Your task to perform on an android device: change the clock display to show seconds Image 0: 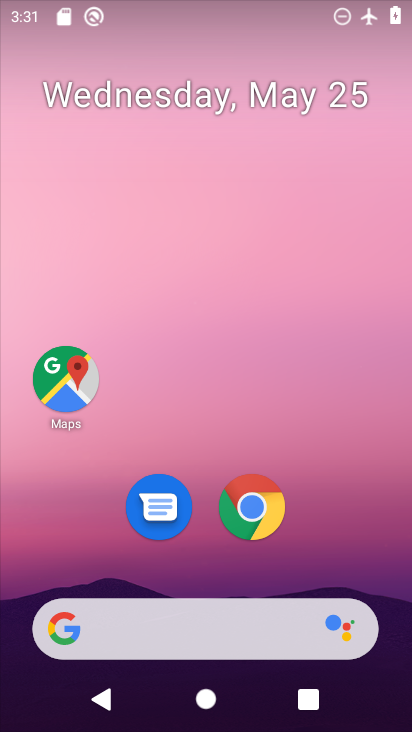
Step 0: drag from (228, 542) to (253, 208)
Your task to perform on an android device: change the clock display to show seconds Image 1: 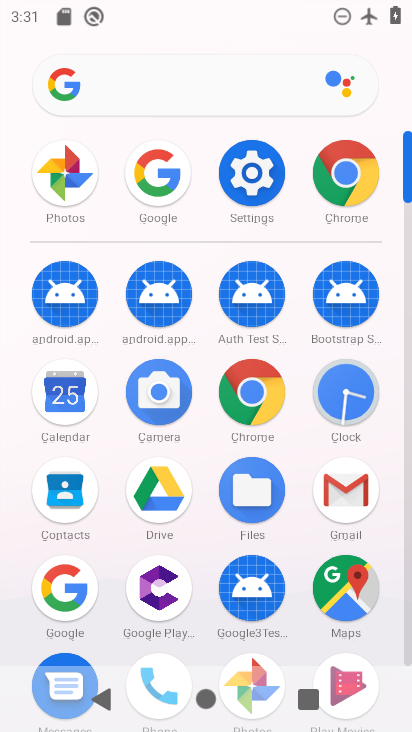
Step 1: click (349, 413)
Your task to perform on an android device: change the clock display to show seconds Image 2: 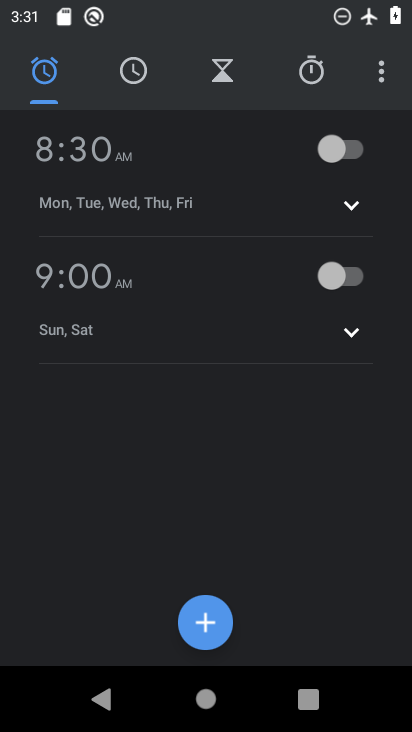
Step 2: click (383, 77)
Your task to perform on an android device: change the clock display to show seconds Image 3: 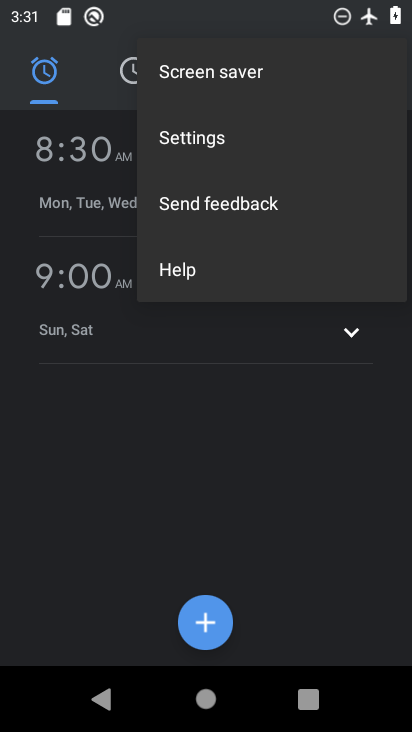
Step 3: click (192, 144)
Your task to perform on an android device: change the clock display to show seconds Image 4: 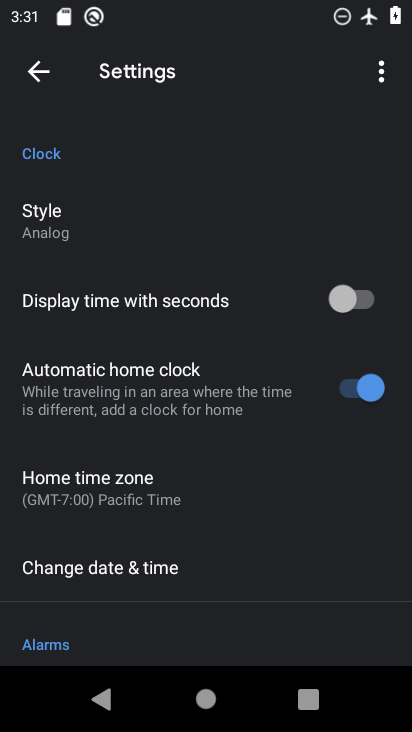
Step 4: click (227, 311)
Your task to perform on an android device: change the clock display to show seconds Image 5: 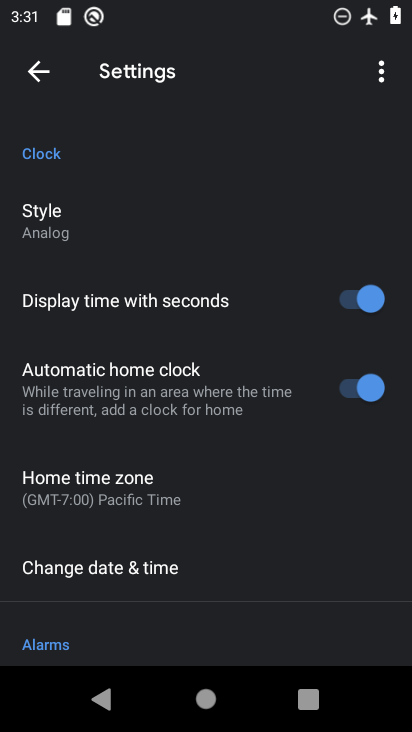
Step 5: task complete